Your task to perform on an android device: install app "Truecaller" Image 0: 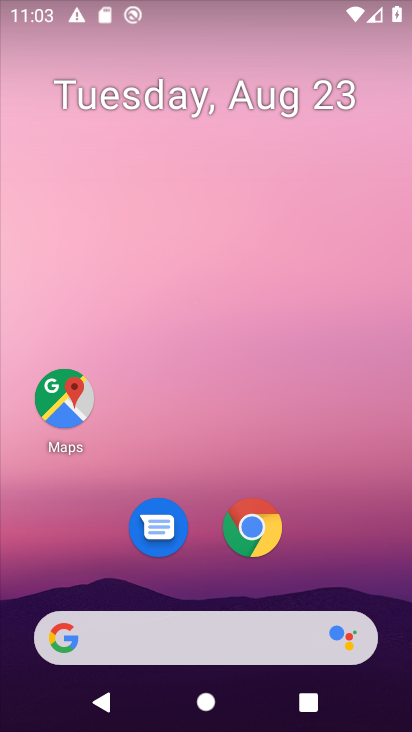
Step 0: drag from (208, 594) to (262, 65)
Your task to perform on an android device: install app "Truecaller" Image 1: 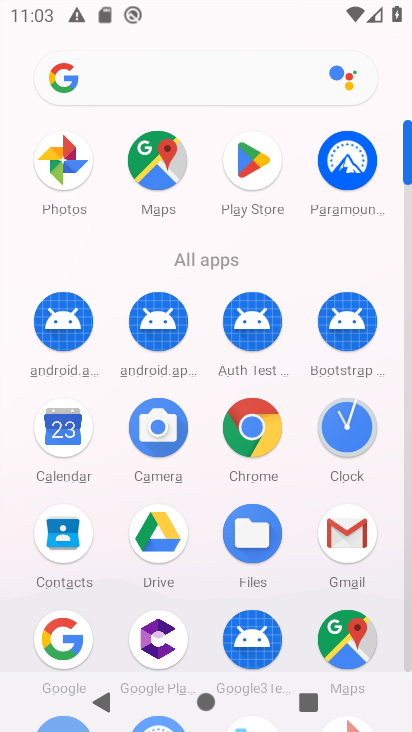
Step 1: click (253, 151)
Your task to perform on an android device: install app "Truecaller" Image 2: 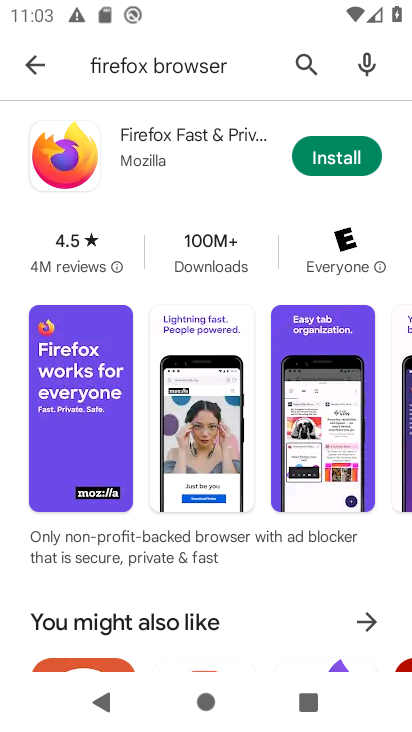
Step 2: click (301, 60)
Your task to perform on an android device: install app "Truecaller" Image 3: 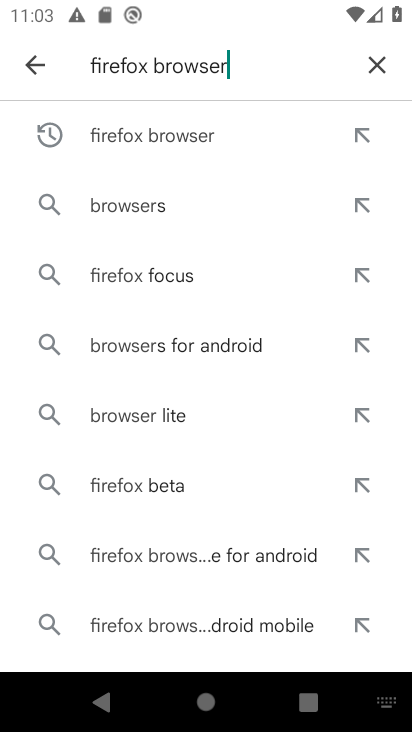
Step 3: click (377, 53)
Your task to perform on an android device: install app "Truecaller" Image 4: 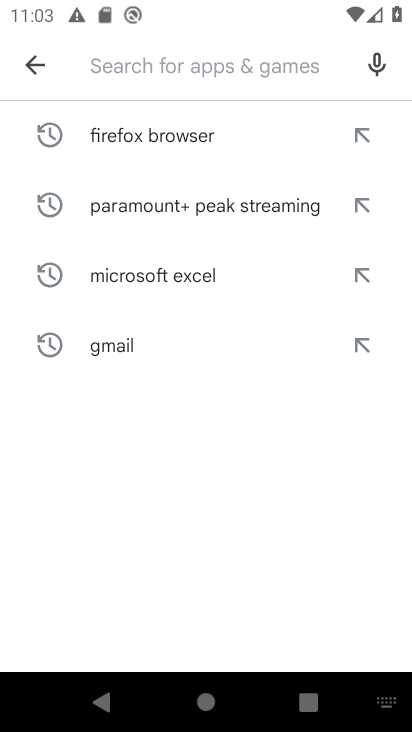
Step 4: click (132, 66)
Your task to perform on an android device: install app "Truecaller" Image 5: 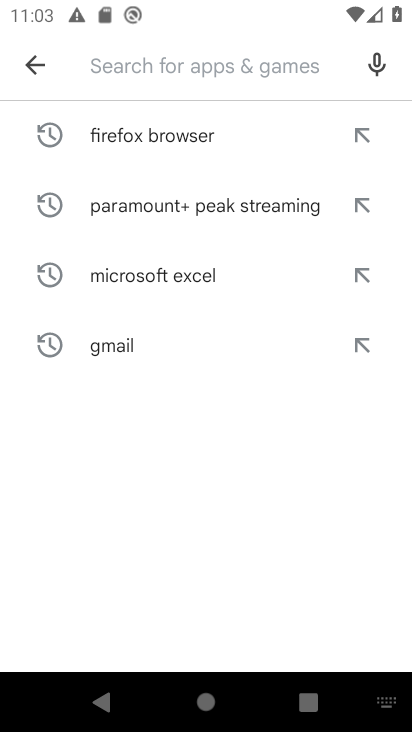
Step 5: type "Truecaller"
Your task to perform on an android device: install app "Truecaller" Image 6: 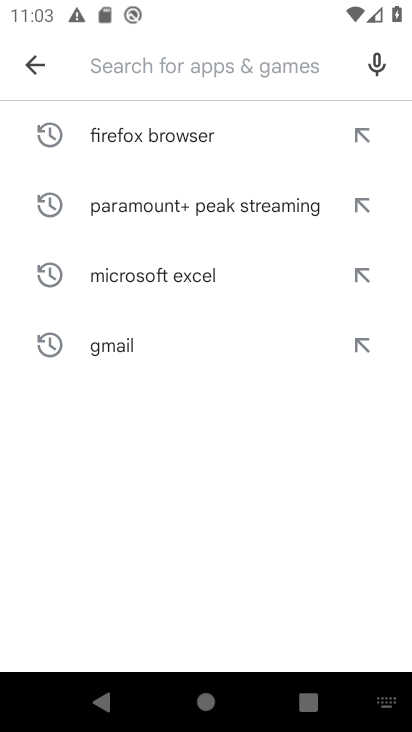
Step 6: click (170, 524)
Your task to perform on an android device: install app "Truecaller" Image 7: 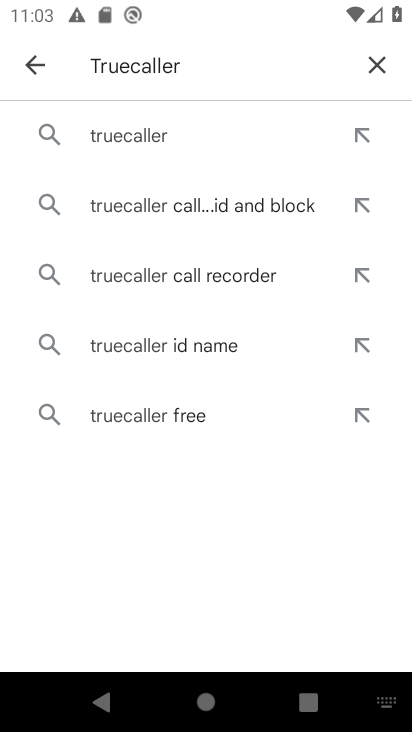
Step 7: click (159, 140)
Your task to perform on an android device: install app "Truecaller" Image 8: 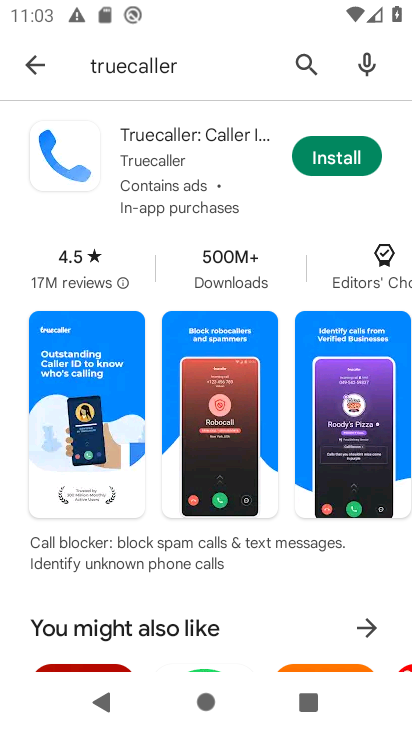
Step 8: click (358, 158)
Your task to perform on an android device: install app "Truecaller" Image 9: 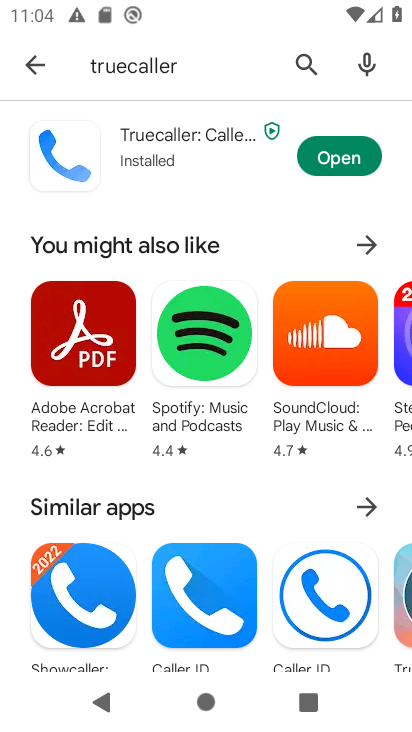
Step 9: task complete